Your task to perform on an android device: Go to settings Image 0: 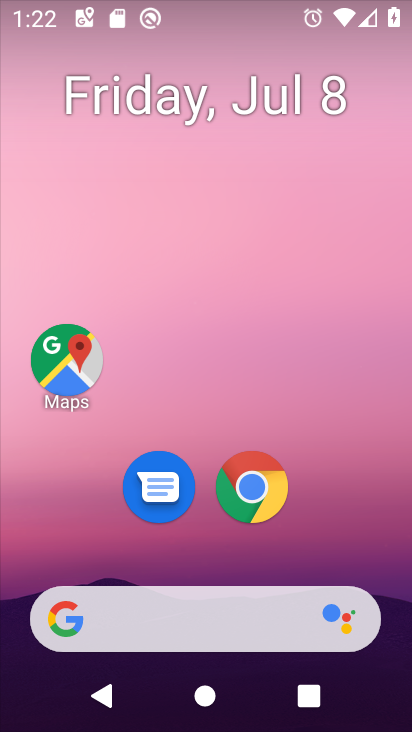
Step 0: drag from (373, 556) to (380, 143)
Your task to perform on an android device: Go to settings Image 1: 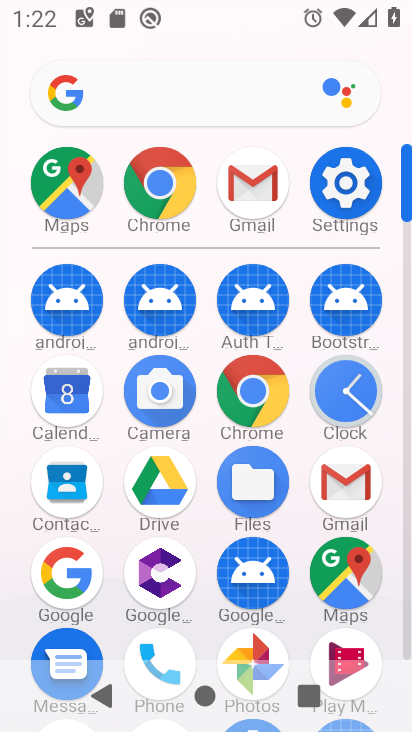
Step 1: click (349, 185)
Your task to perform on an android device: Go to settings Image 2: 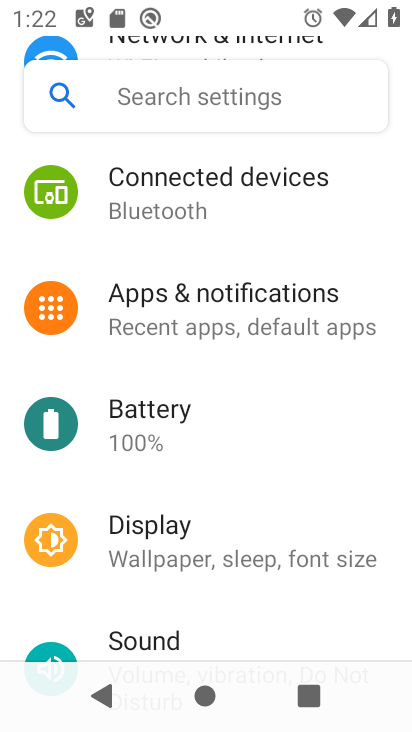
Step 2: task complete